Your task to perform on an android device: Set the phone to "Do not disturb". Image 0: 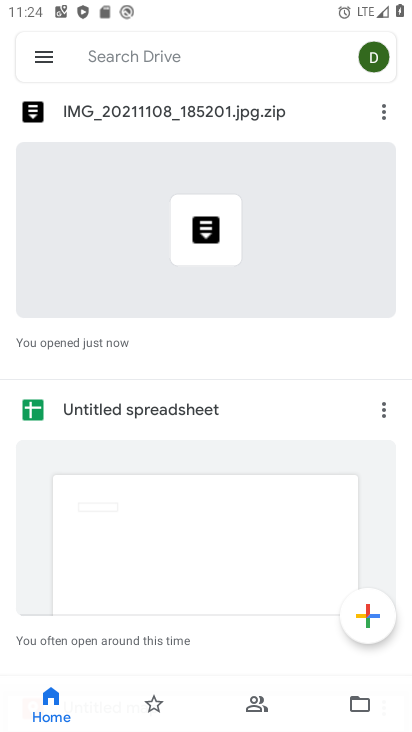
Step 0: press home button
Your task to perform on an android device: Set the phone to "Do not disturb". Image 1: 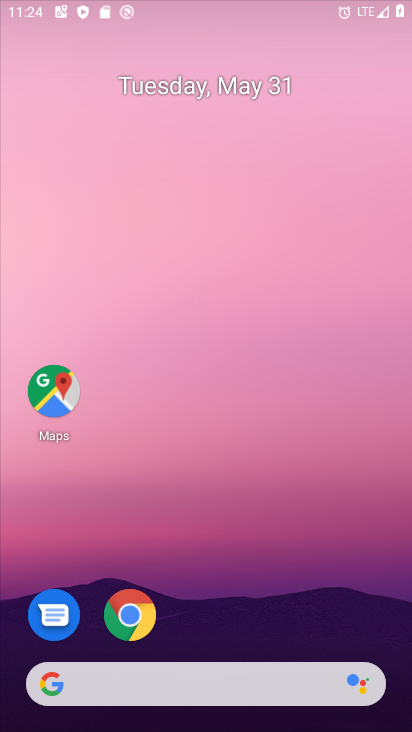
Step 1: drag from (343, 501) to (367, 42)
Your task to perform on an android device: Set the phone to "Do not disturb". Image 2: 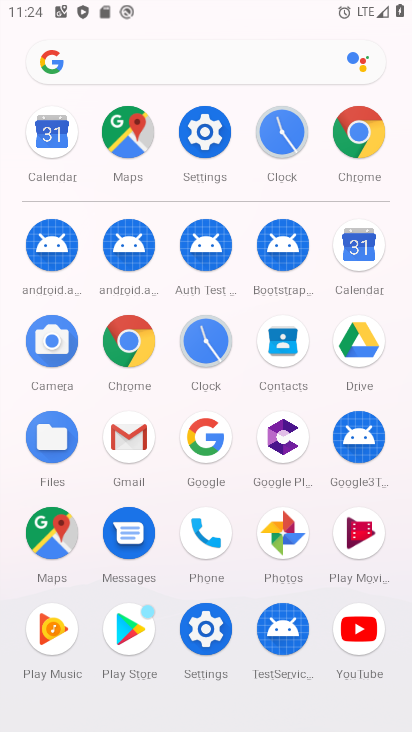
Step 2: click (208, 132)
Your task to perform on an android device: Set the phone to "Do not disturb". Image 3: 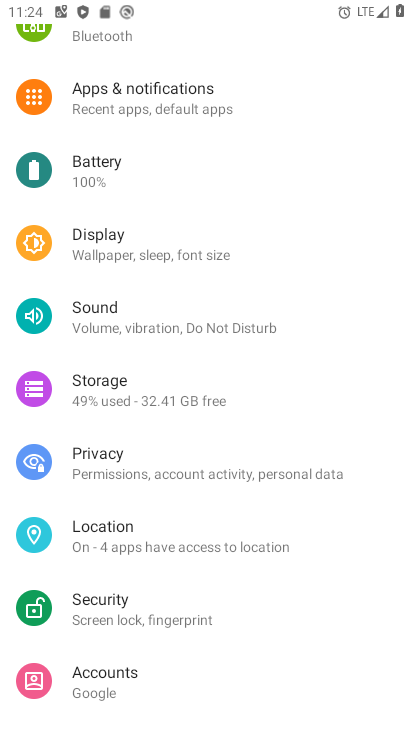
Step 3: click (170, 332)
Your task to perform on an android device: Set the phone to "Do not disturb". Image 4: 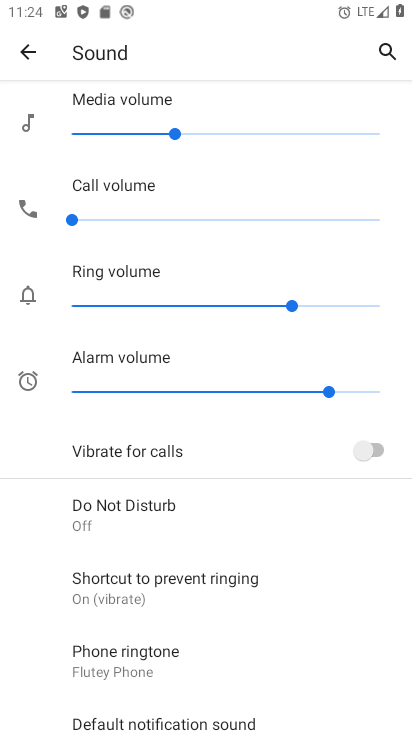
Step 4: task complete